Your task to perform on an android device: Open the map Image 0: 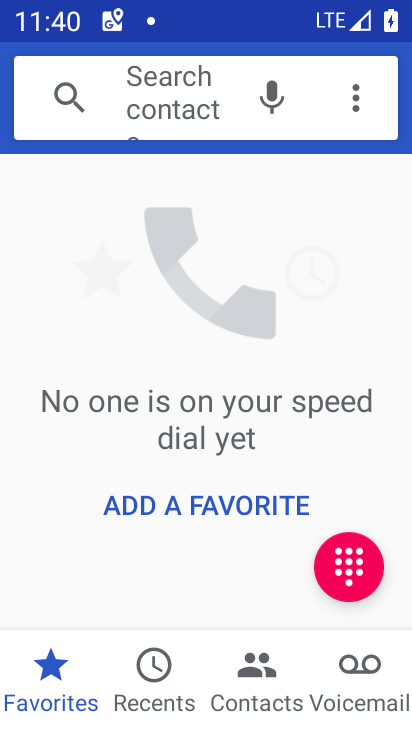
Step 0: press home button
Your task to perform on an android device: Open the map Image 1: 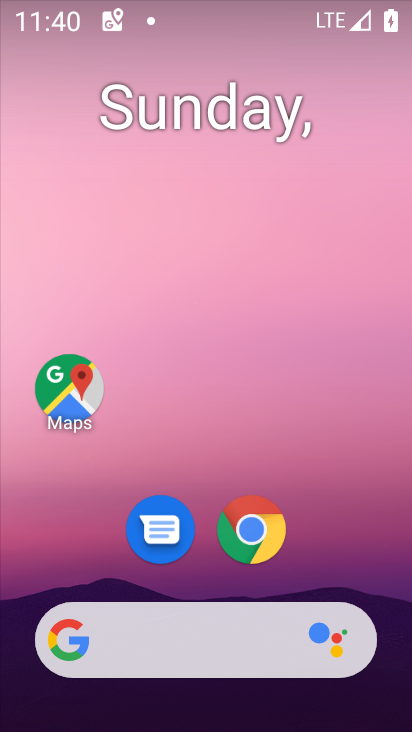
Step 1: click (65, 389)
Your task to perform on an android device: Open the map Image 2: 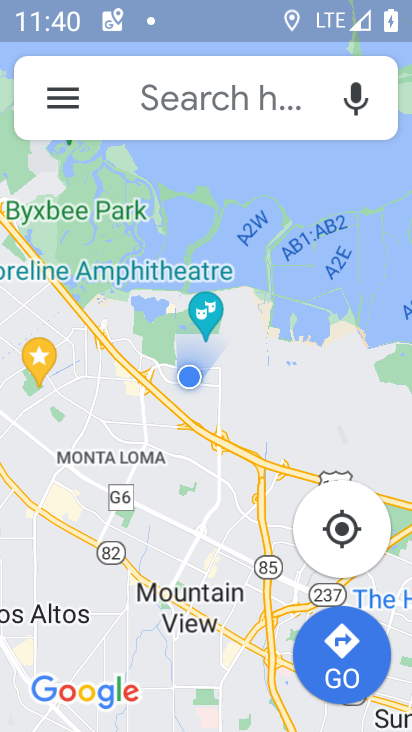
Step 2: task complete